Your task to perform on an android device: turn off translation in the chrome app Image 0: 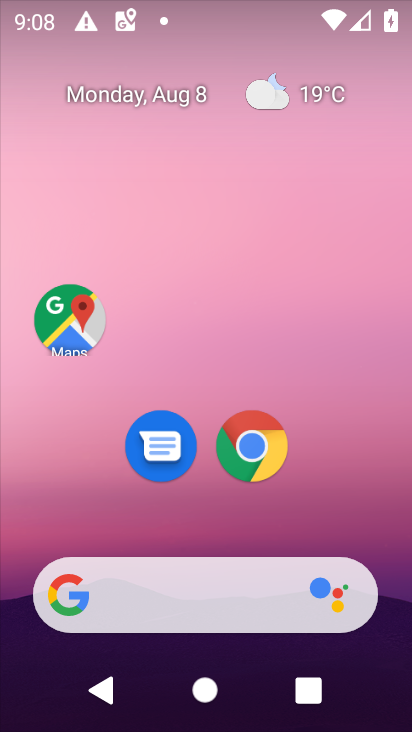
Step 0: click (251, 442)
Your task to perform on an android device: turn off translation in the chrome app Image 1: 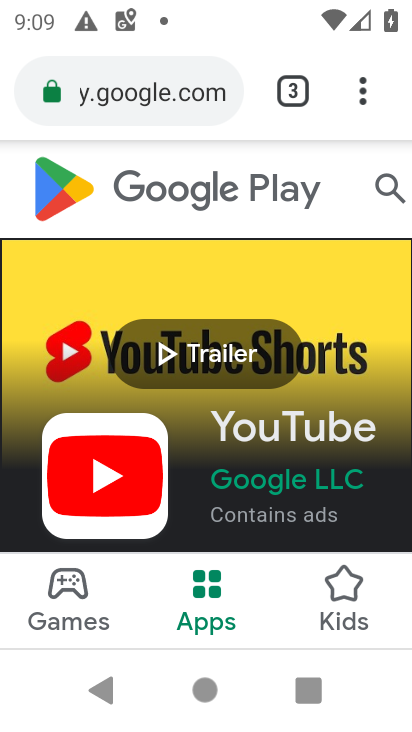
Step 1: click (347, 101)
Your task to perform on an android device: turn off translation in the chrome app Image 2: 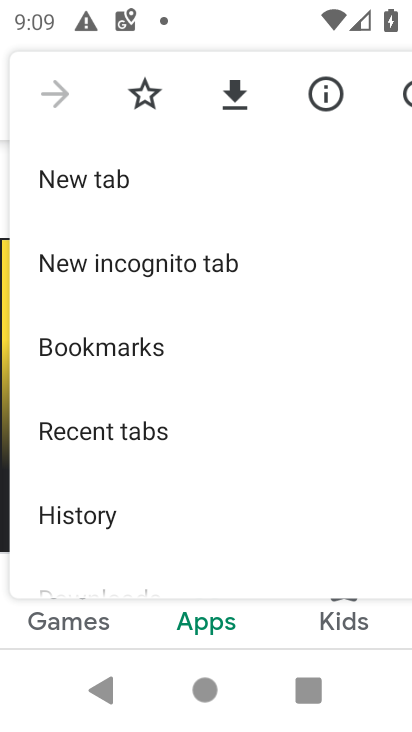
Step 2: drag from (221, 568) to (272, 243)
Your task to perform on an android device: turn off translation in the chrome app Image 3: 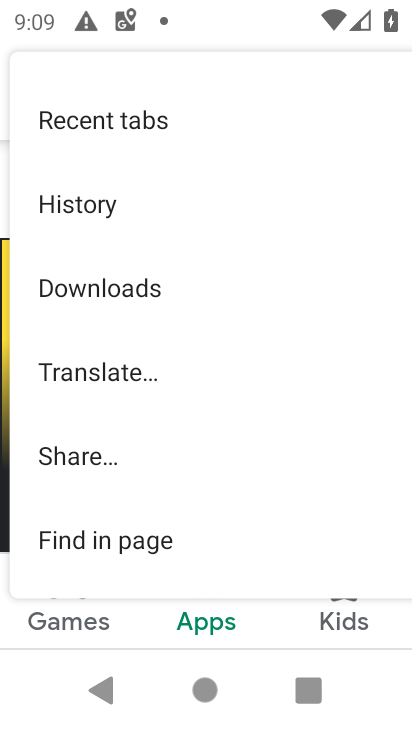
Step 3: drag from (198, 539) to (228, 164)
Your task to perform on an android device: turn off translation in the chrome app Image 4: 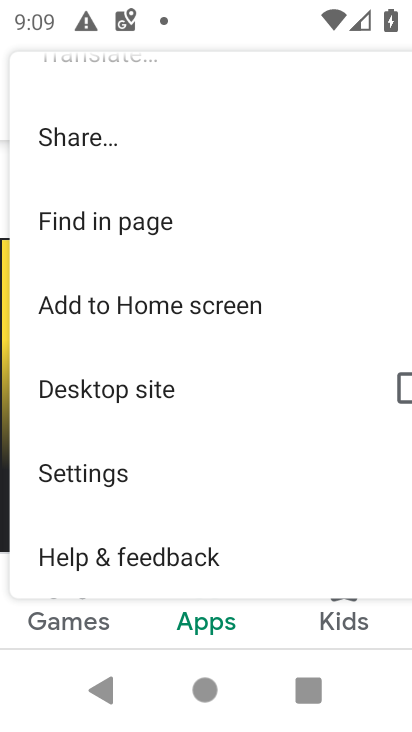
Step 4: click (87, 480)
Your task to perform on an android device: turn off translation in the chrome app Image 5: 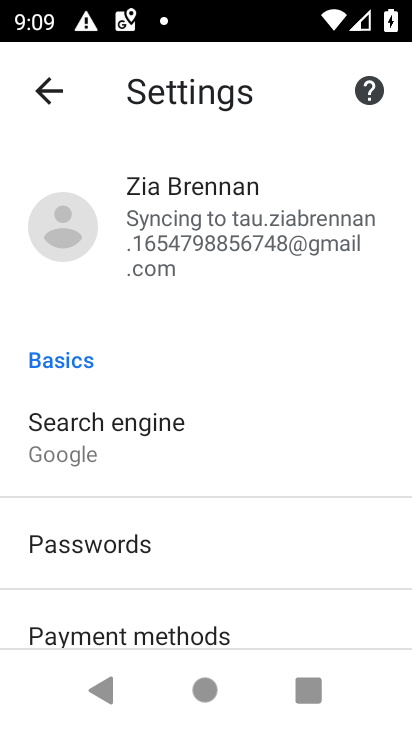
Step 5: drag from (272, 616) to (303, 188)
Your task to perform on an android device: turn off translation in the chrome app Image 6: 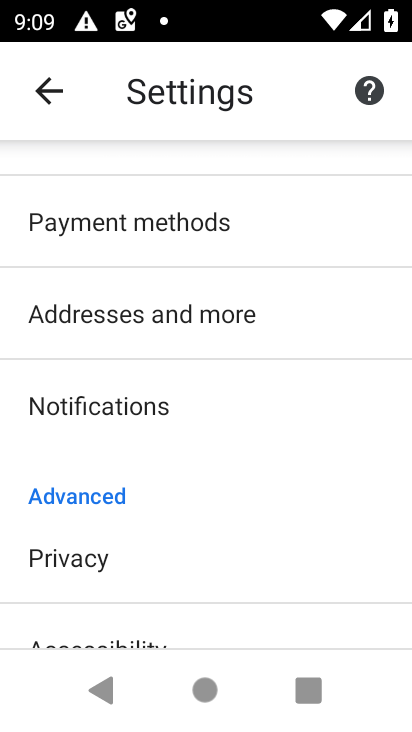
Step 6: drag from (194, 610) to (254, 214)
Your task to perform on an android device: turn off translation in the chrome app Image 7: 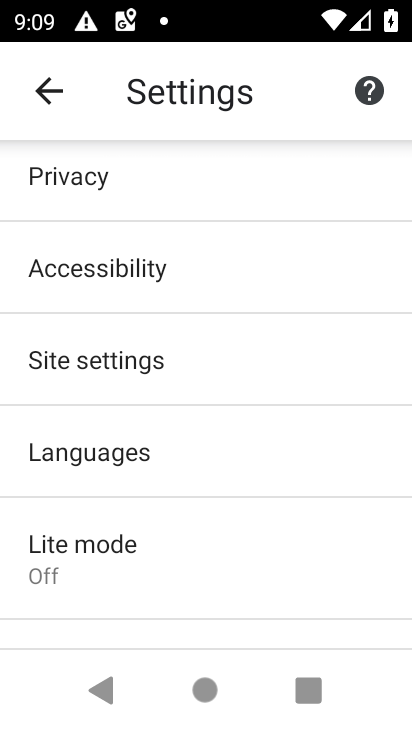
Step 7: click (80, 468)
Your task to perform on an android device: turn off translation in the chrome app Image 8: 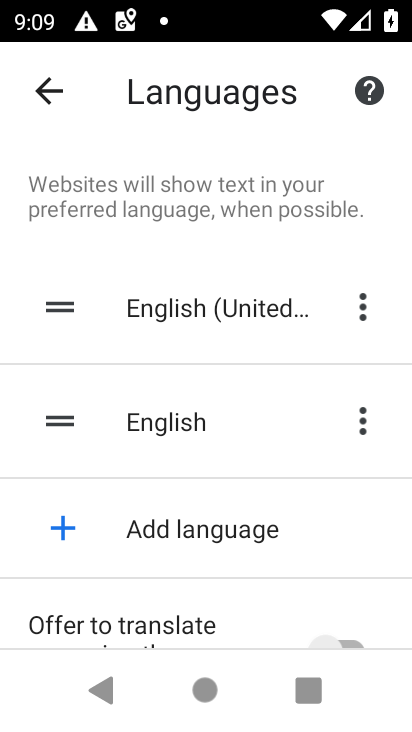
Step 8: task complete